Your task to perform on an android device: Check the news Image 0: 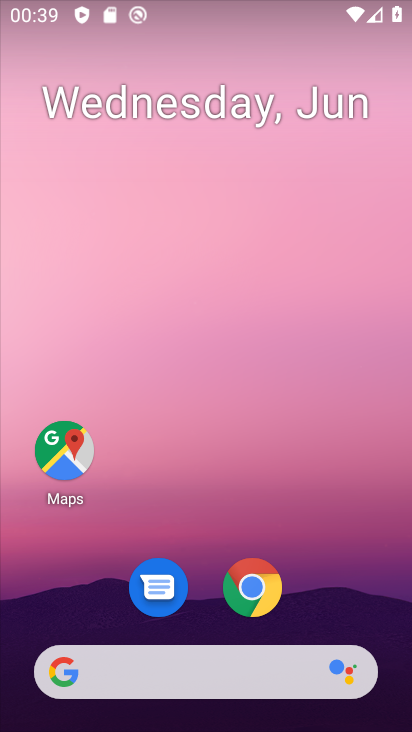
Step 0: click (257, 581)
Your task to perform on an android device: Check the news Image 1: 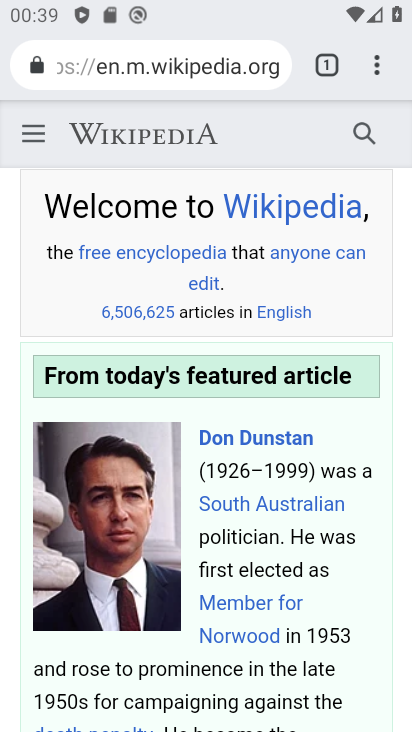
Step 1: click (205, 54)
Your task to perform on an android device: Check the news Image 2: 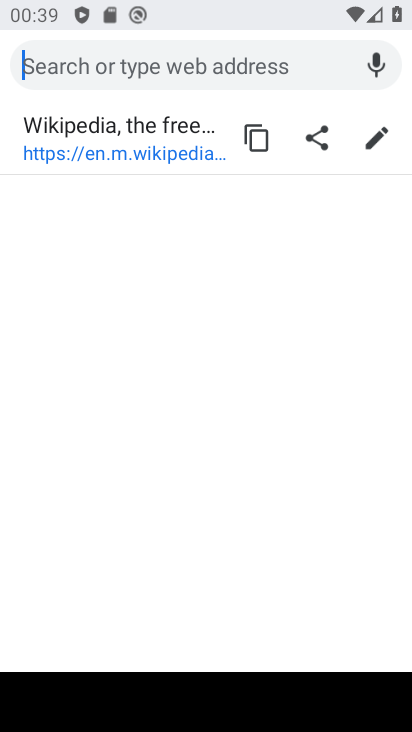
Step 2: type "news"
Your task to perform on an android device: Check the news Image 3: 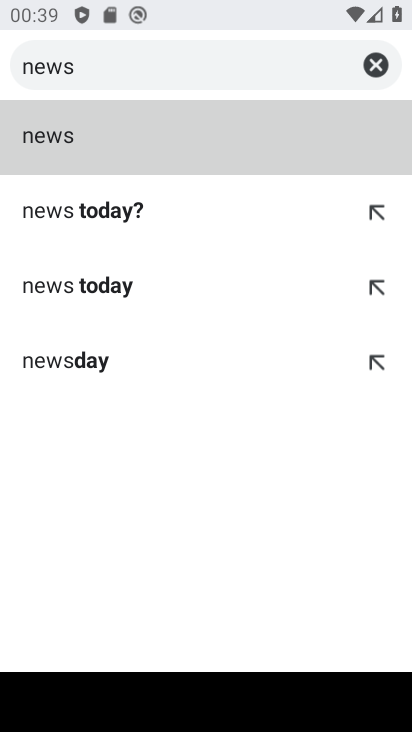
Step 3: click (75, 128)
Your task to perform on an android device: Check the news Image 4: 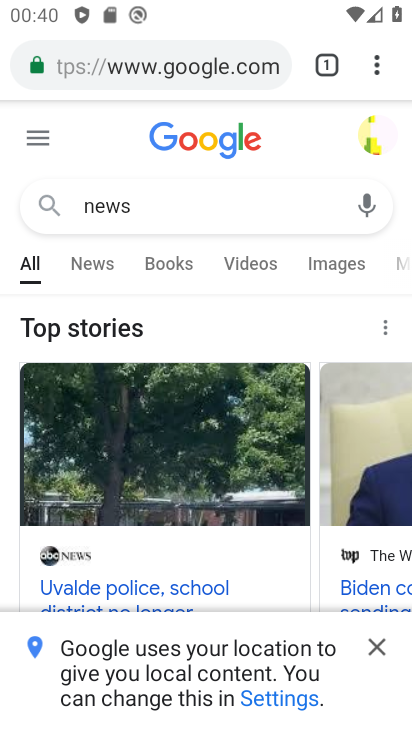
Step 4: click (101, 262)
Your task to perform on an android device: Check the news Image 5: 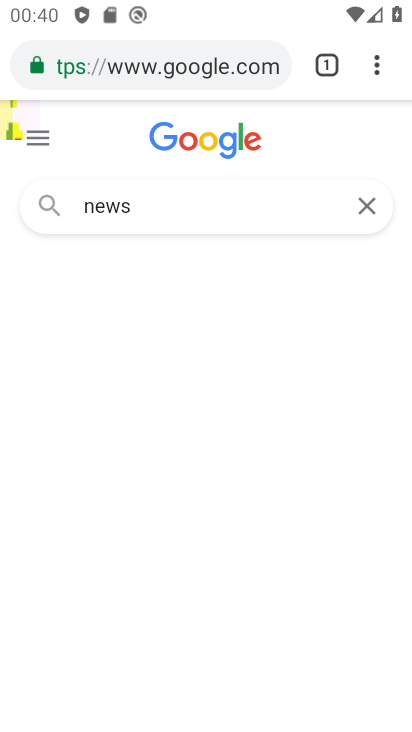
Step 5: task complete